Your task to perform on an android device: Open Chrome and go to settings Image 0: 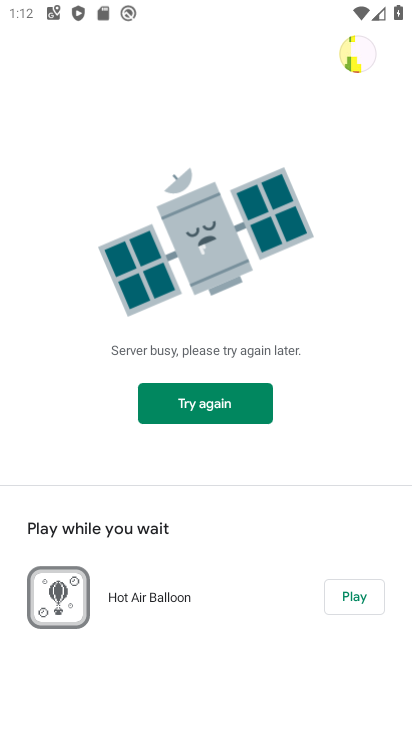
Step 0: task impossible